Your task to perform on an android device: Open sound settings Image 0: 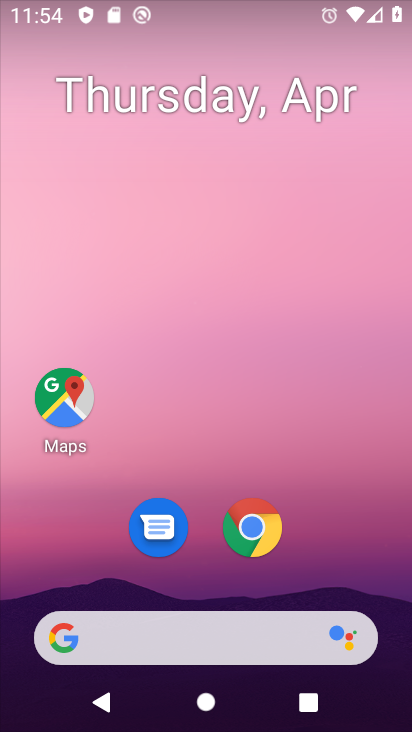
Step 0: drag from (192, 587) to (208, 83)
Your task to perform on an android device: Open sound settings Image 1: 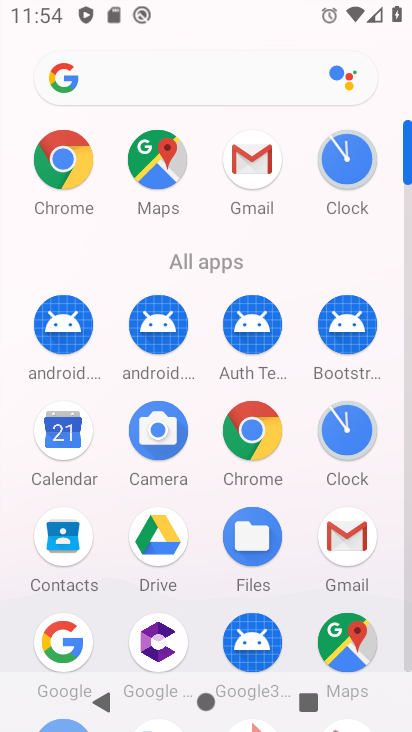
Step 1: drag from (199, 620) to (219, 247)
Your task to perform on an android device: Open sound settings Image 2: 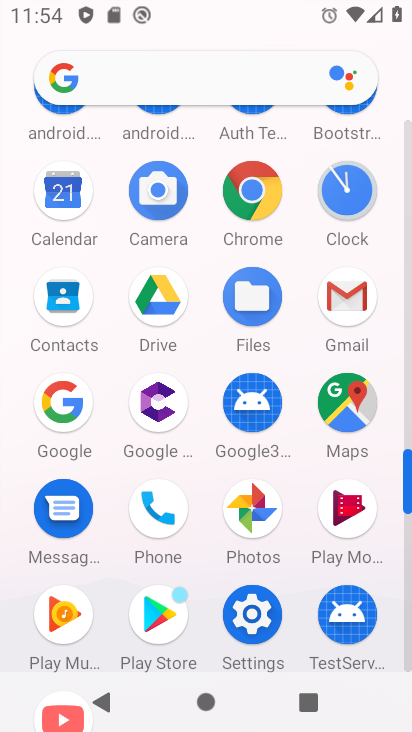
Step 2: click (250, 624)
Your task to perform on an android device: Open sound settings Image 3: 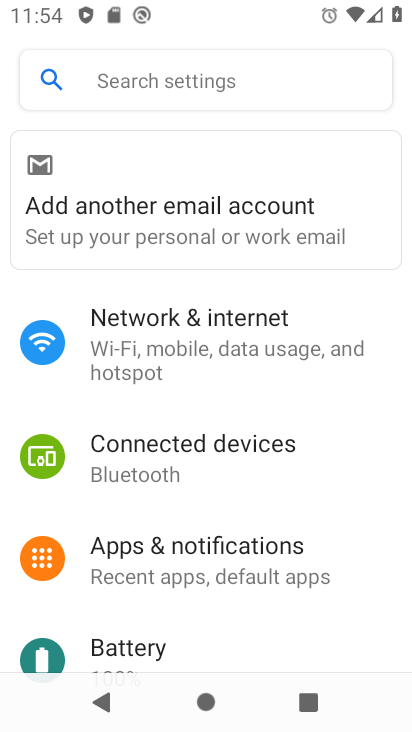
Step 3: drag from (218, 631) to (234, 288)
Your task to perform on an android device: Open sound settings Image 4: 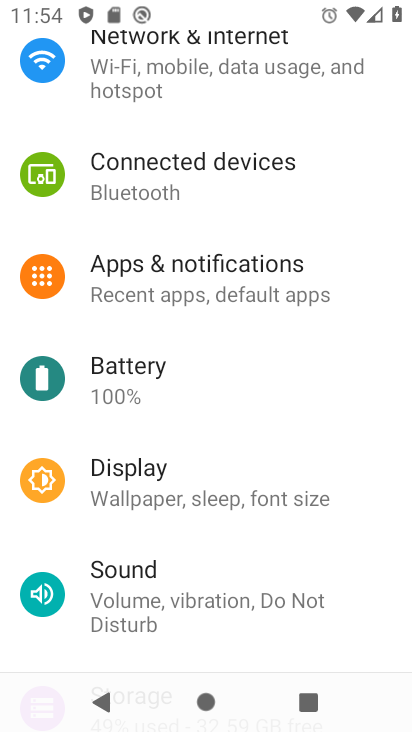
Step 4: click (191, 570)
Your task to perform on an android device: Open sound settings Image 5: 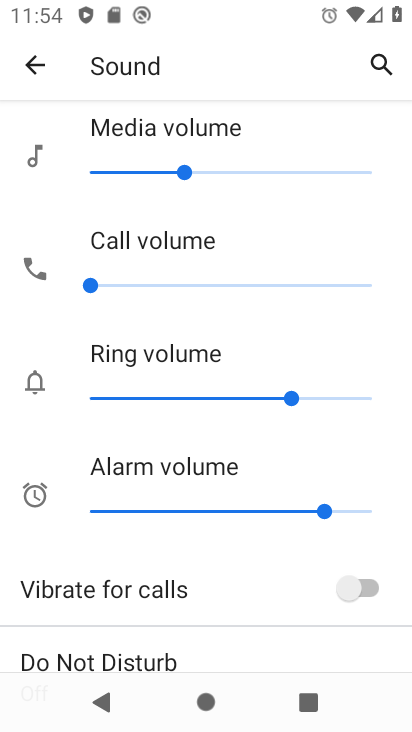
Step 5: task complete